Your task to perform on an android device: allow cookies in the chrome app Image 0: 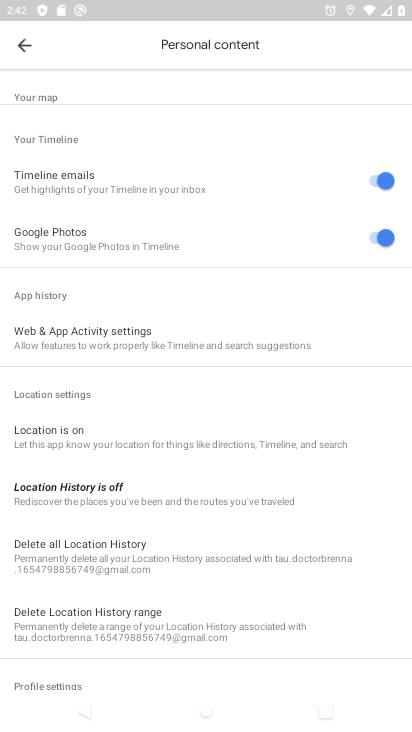
Step 0: press home button
Your task to perform on an android device: allow cookies in the chrome app Image 1: 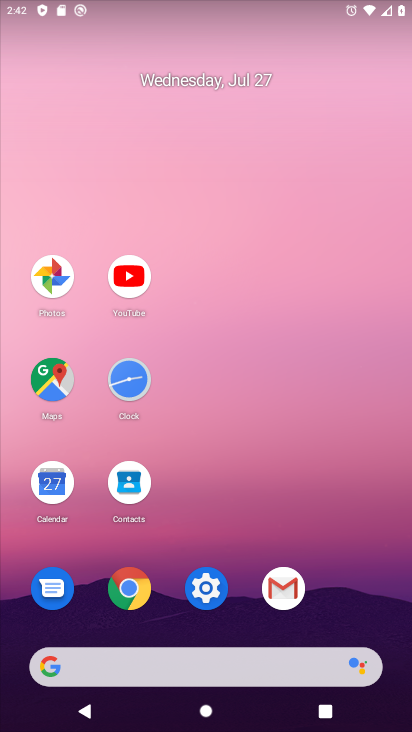
Step 1: click (129, 582)
Your task to perform on an android device: allow cookies in the chrome app Image 2: 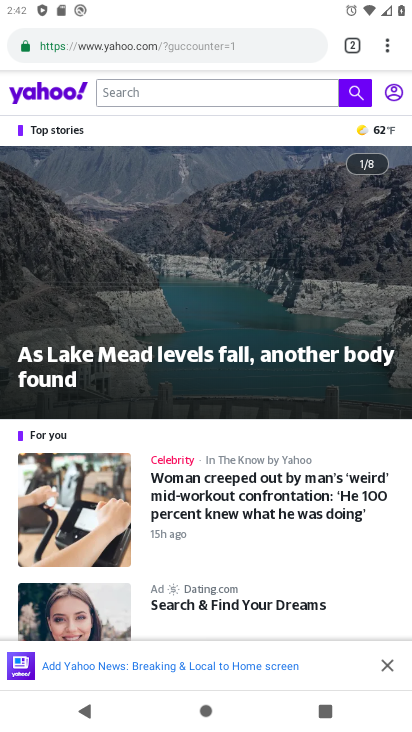
Step 2: click (388, 44)
Your task to perform on an android device: allow cookies in the chrome app Image 3: 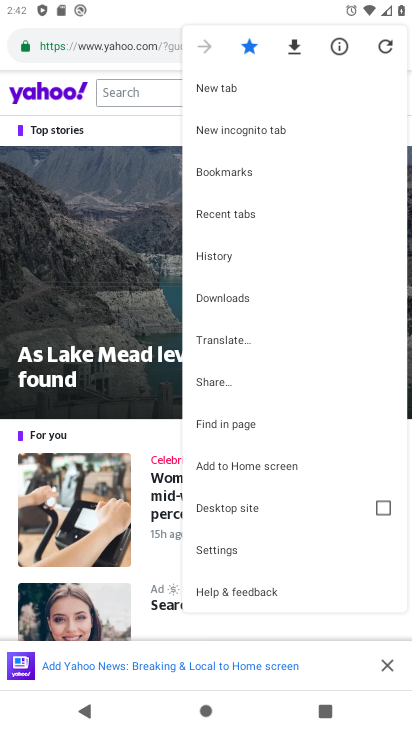
Step 3: click (212, 547)
Your task to perform on an android device: allow cookies in the chrome app Image 4: 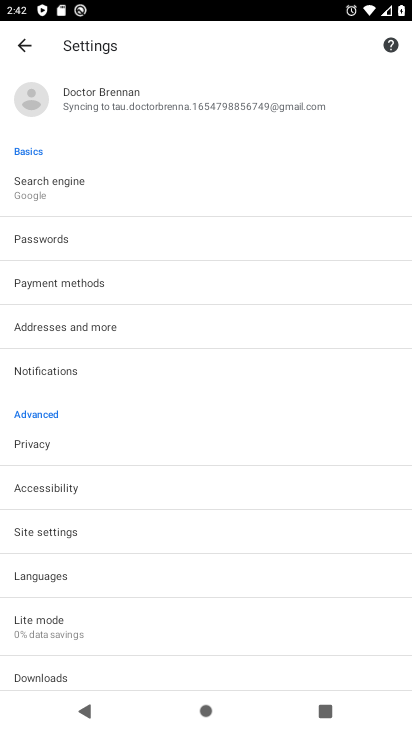
Step 4: click (53, 526)
Your task to perform on an android device: allow cookies in the chrome app Image 5: 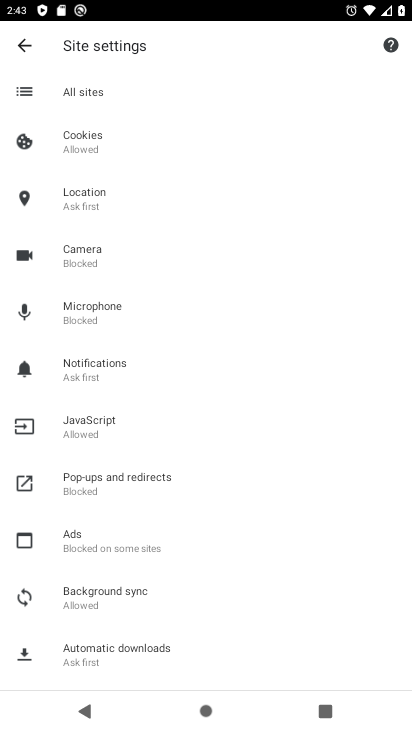
Step 5: click (89, 134)
Your task to perform on an android device: allow cookies in the chrome app Image 6: 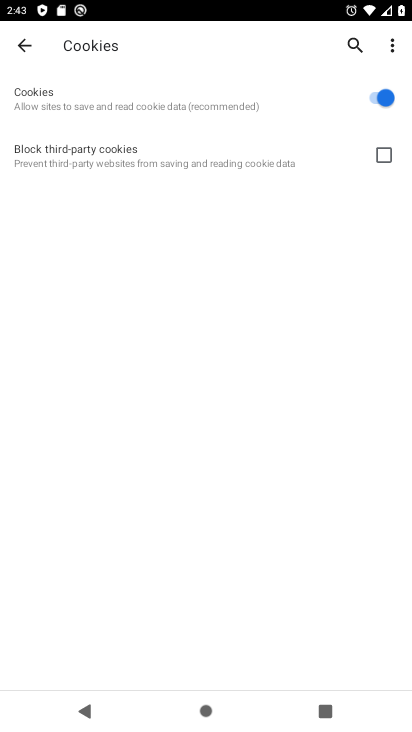
Step 6: task complete